Your task to perform on an android device: Open sound settings Image 0: 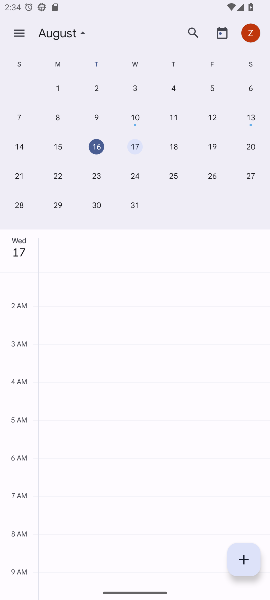
Step 0: press home button
Your task to perform on an android device: Open sound settings Image 1: 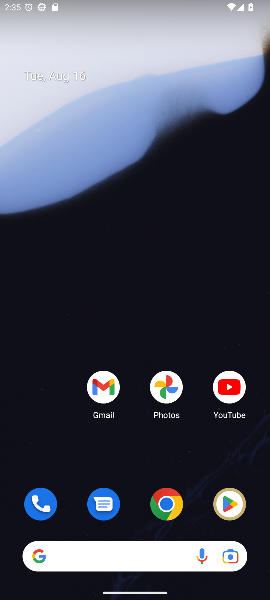
Step 1: drag from (134, 476) to (145, 81)
Your task to perform on an android device: Open sound settings Image 2: 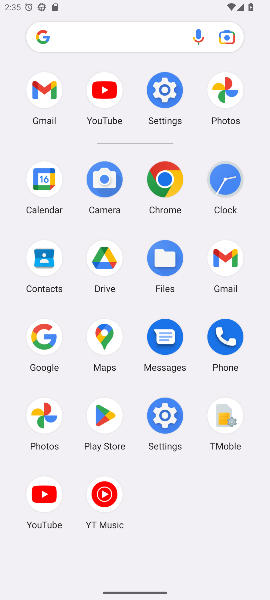
Step 2: click (162, 92)
Your task to perform on an android device: Open sound settings Image 3: 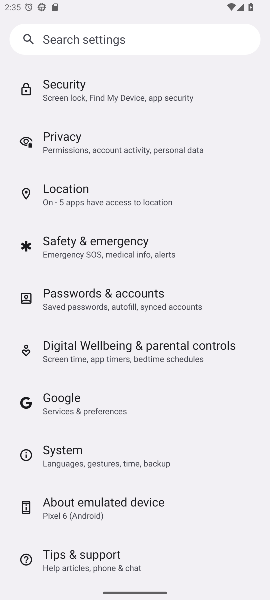
Step 3: drag from (199, 184) to (167, 424)
Your task to perform on an android device: Open sound settings Image 4: 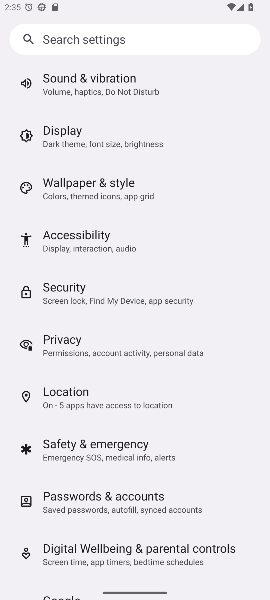
Step 4: click (76, 79)
Your task to perform on an android device: Open sound settings Image 5: 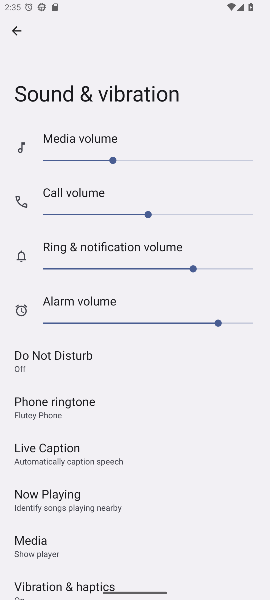
Step 5: task complete